Your task to perform on an android device: Go to Google Image 0: 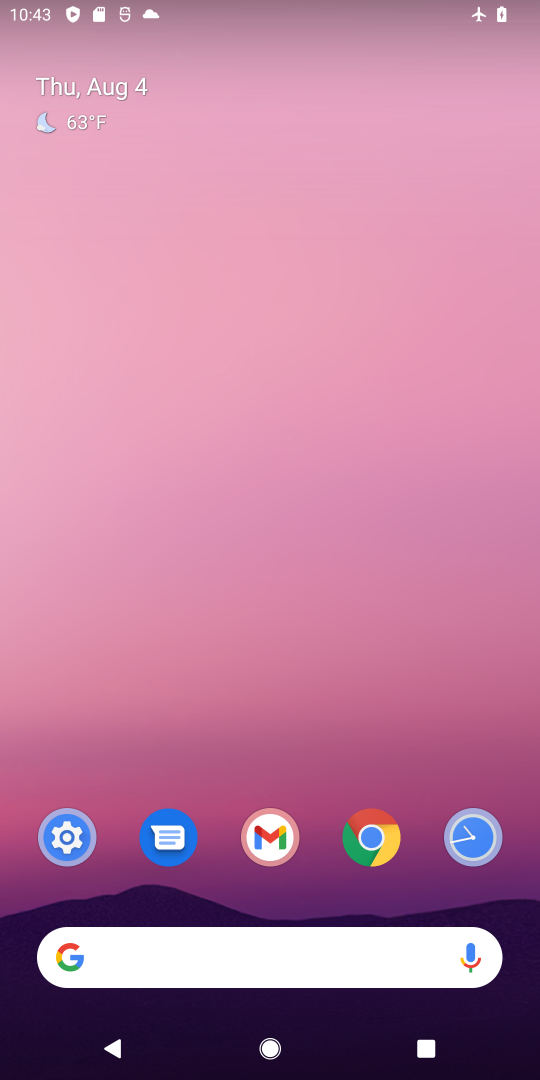
Step 0: drag from (312, 877) to (333, 129)
Your task to perform on an android device: Go to Google Image 1: 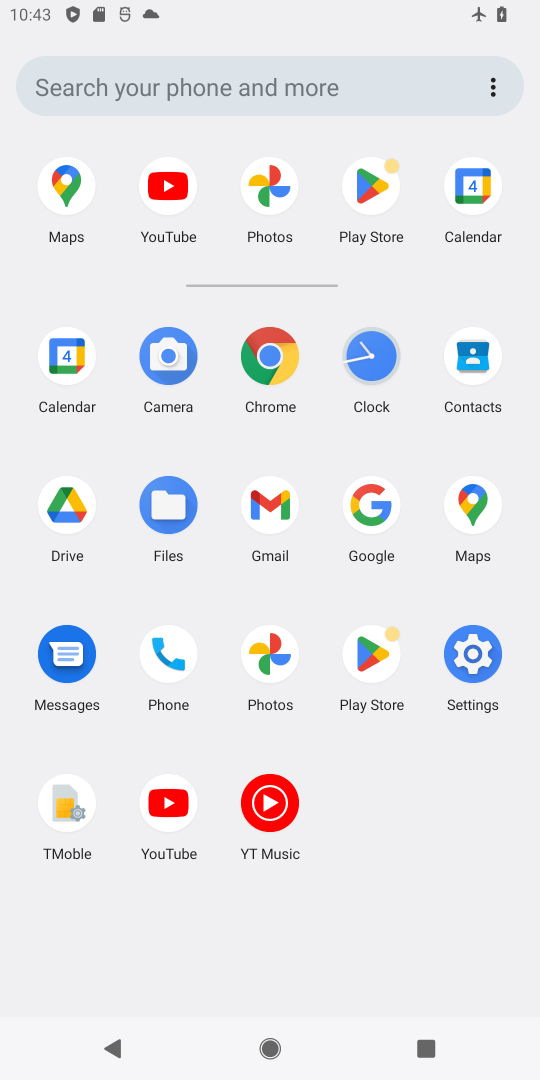
Step 1: click (359, 497)
Your task to perform on an android device: Go to Google Image 2: 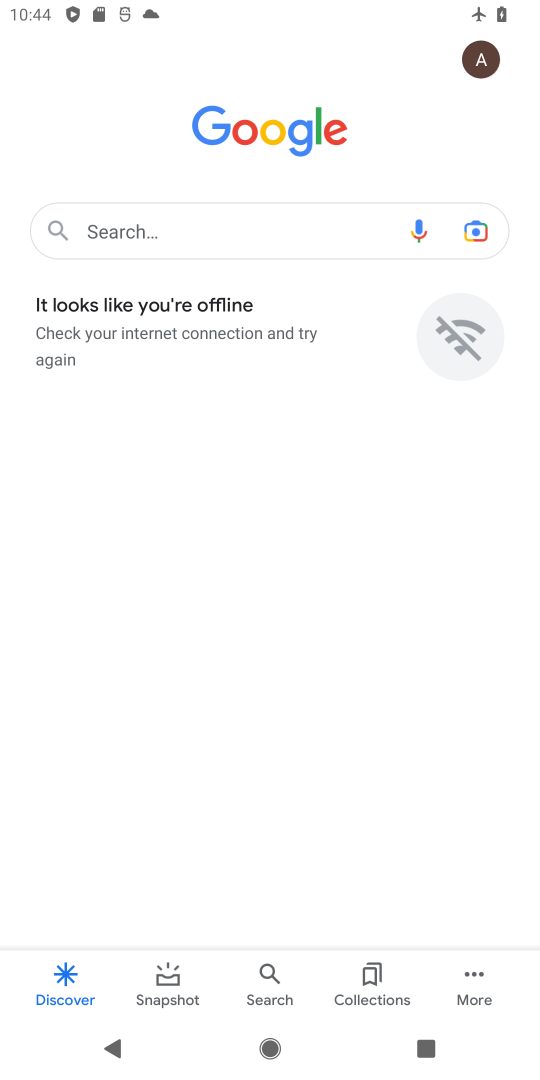
Step 2: task complete